Your task to perform on an android device: open app "AliExpress" (install if not already installed) and enter user name: "orangutan@inbox.com" and password: "Lyons" Image 0: 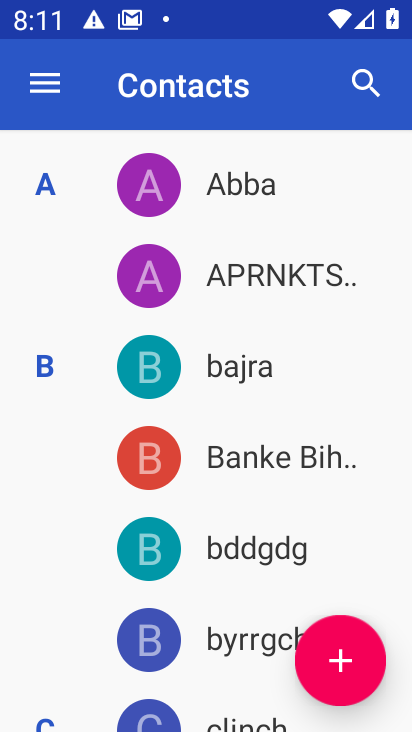
Step 0: press home button
Your task to perform on an android device: open app "AliExpress" (install if not already installed) and enter user name: "orangutan@inbox.com" and password: "Lyons" Image 1: 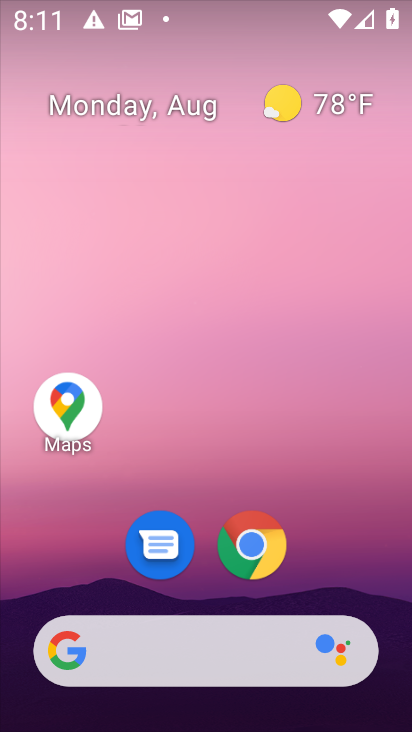
Step 1: drag from (336, 572) to (346, 122)
Your task to perform on an android device: open app "AliExpress" (install if not already installed) and enter user name: "orangutan@inbox.com" and password: "Lyons" Image 2: 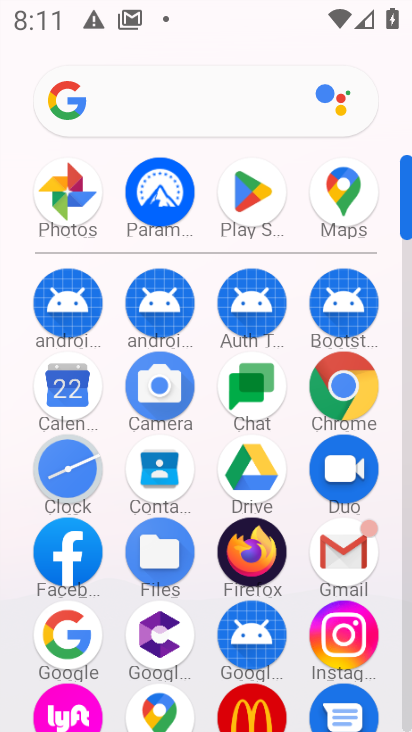
Step 2: click (257, 196)
Your task to perform on an android device: open app "AliExpress" (install if not already installed) and enter user name: "orangutan@inbox.com" and password: "Lyons" Image 3: 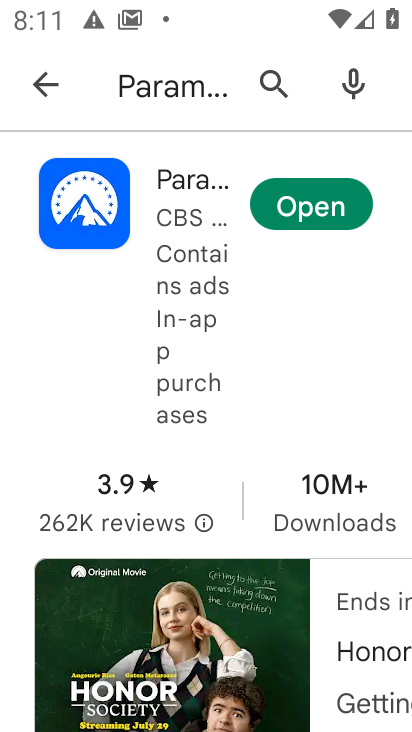
Step 3: press back button
Your task to perform on an android device: open app "AliExpress" (install if not already installed) and enter user name: "orangutan@inbox.com" and password: "Lyons" Image 4: 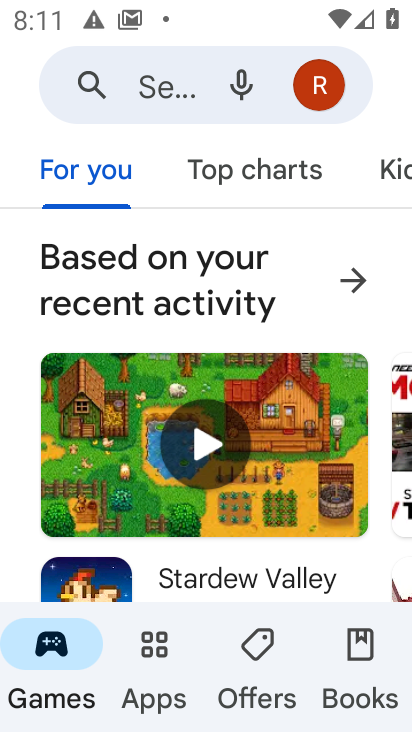
Step 4: click (144, 90)
Your task to perform on an android device: open app "AliExpress" (install if not already installed) and enter user name: "orangutan@inbox.com" and password: "Lyons" Image 5: 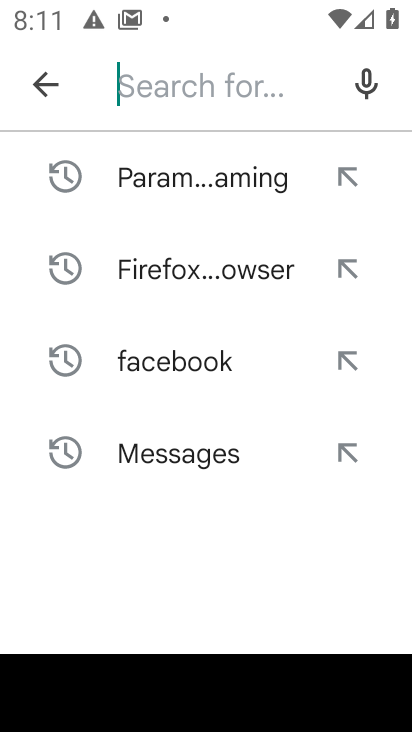
Step 5: type "AliExpress"
Your task to perform on an android device: open app "AliExpress" (install if not already installed) and enter user name: "orangutan@inbox.com" and password: "Lyons" Image 6: 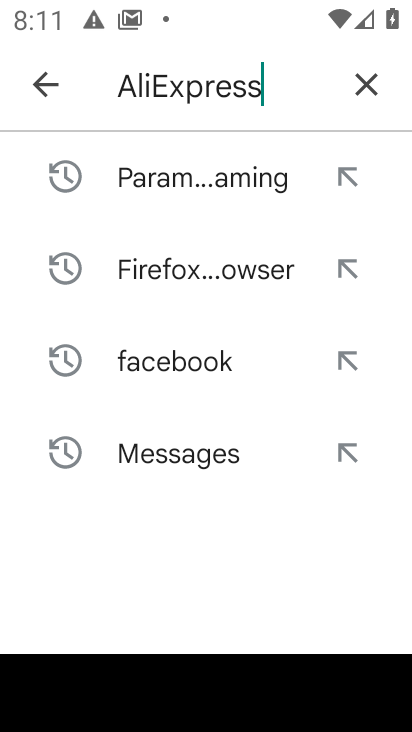
Step 6: press enter
Your task to perform on an android device: open app "AliExpress" (install if not already installed) and enter user name: "orangutan@inbox.com" and password: "Lyons" Image 7: 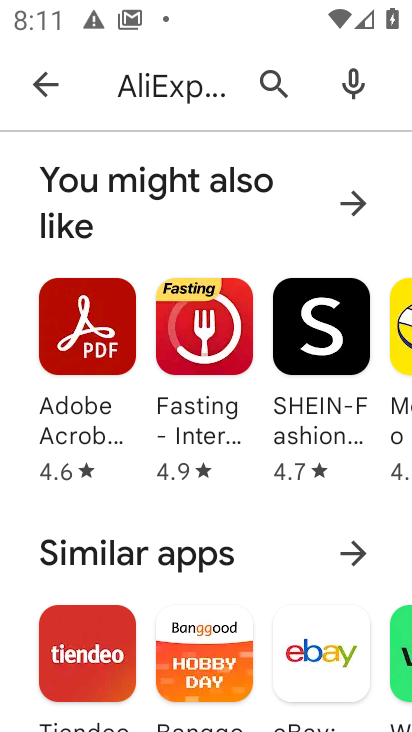
Step 7: drag from (228, 509) to (228, 238)
Your task to perform on an android device: open app "AliExpress" (install if not already installed) and enter user name: "orangutan@inbox.com" and password: "Lyons" Image 8: 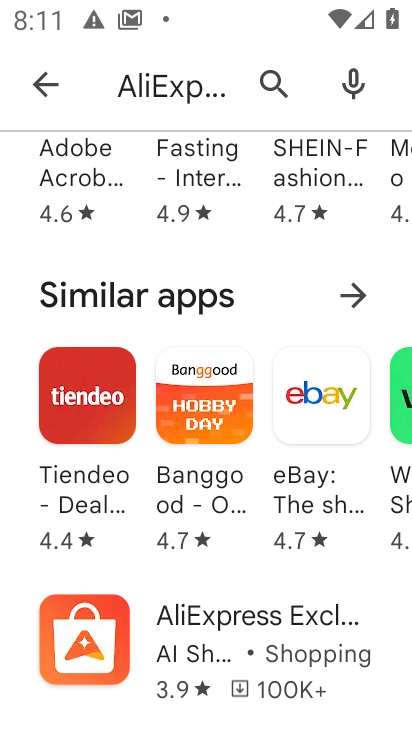
Step 8: drag from (201, 636) to (207, 325)
Your task to perform on an android device: open app "AliExpress" (install if not already installed) and enter user name: "orangutan@inbox.com" and password: "Lyons" Image 9: 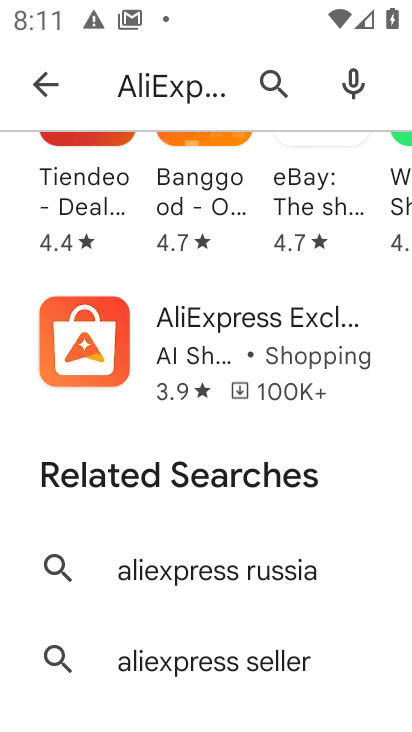
Step 9: click (230, 327)
Your task to perform on an android device: open app "AliExpress" (install if not already installed) and enter user name: "orangutan@inbox.com" and password: "Lyons" Image 10: 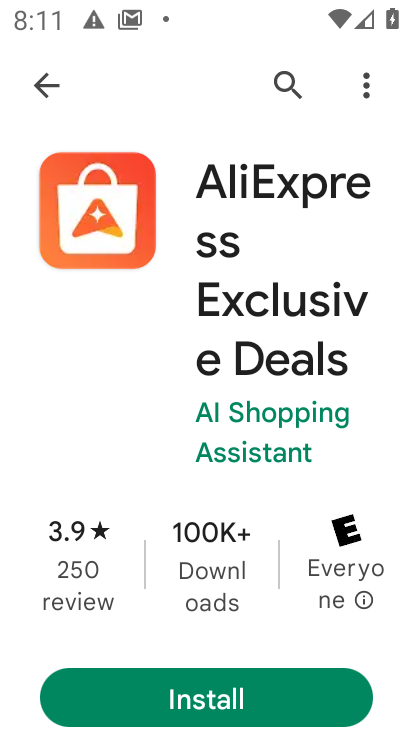
Step 10: click (241, 705)
Your task to perform on an android device: open app "AliExpress" (install if not already installed) and enter user name: "orangutan@inbox.com" and password: "Lyons" Image 11: 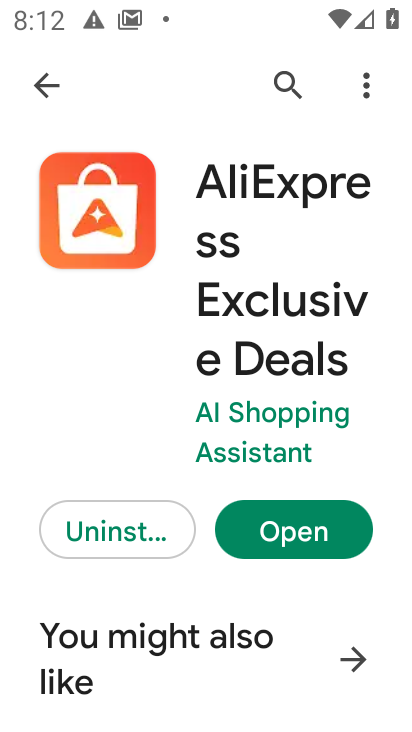
Step 11: click (318, 533)
Your task to perform on an android device: open app "AliExpress" (install if not already installed) and enter user name: "orangutan@inbox.com" and password: "Lyons" Image 12: 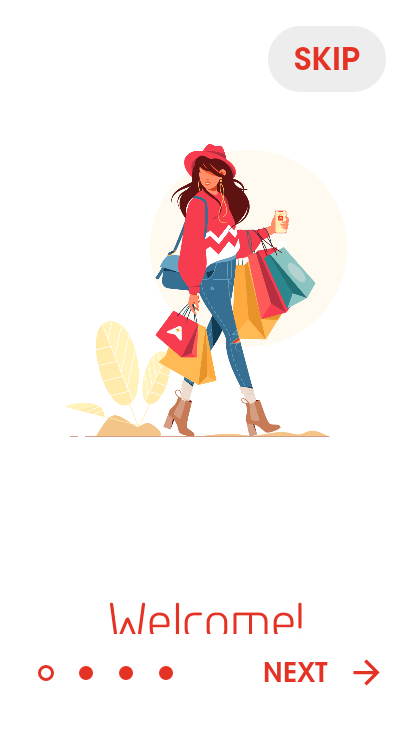
Step 12: click (296, 663)
Your task to perform on an android device: open app "AliExpress" (install if not already installed) and enter user name: "orangutan@inbox.com" and password: "Lyons" Image 13: 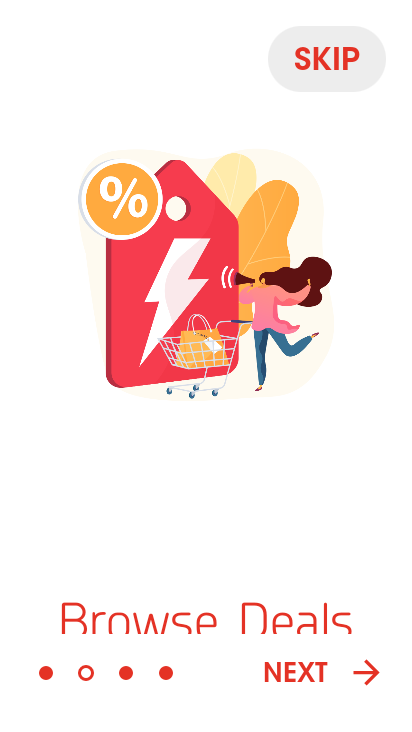
Step 13: click (301, 678)
Your task to perform on an android device: open app "AliExpress" (install if not already installed) and enter user name: "orangutan@inbox.com" and password: "Lyons" Image 14: 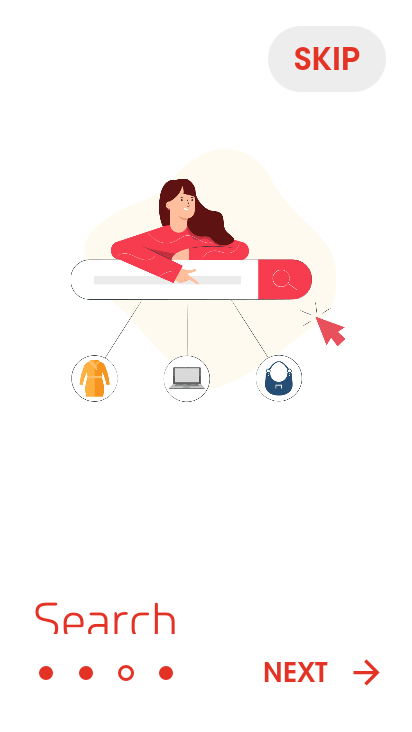
Step 14: click (287, 669)
Your task to perform on an android device: open app "AliExpress" (install if not already installed) and enter user name: "orangutan@inbox.com" and password: "Lyons" Image 15: 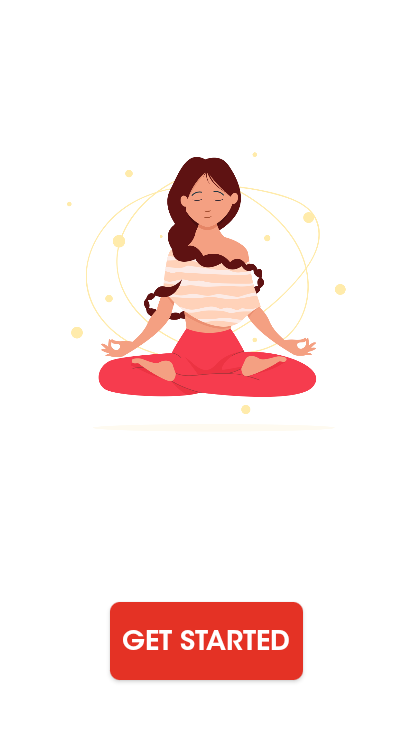
Step 15: click (244, 645)
Your task to perform on an android device: open app "AliExpress" (install if not already installed) and enter user name: "orangutan@inbox.com" and password: "Lyons" Image 16: 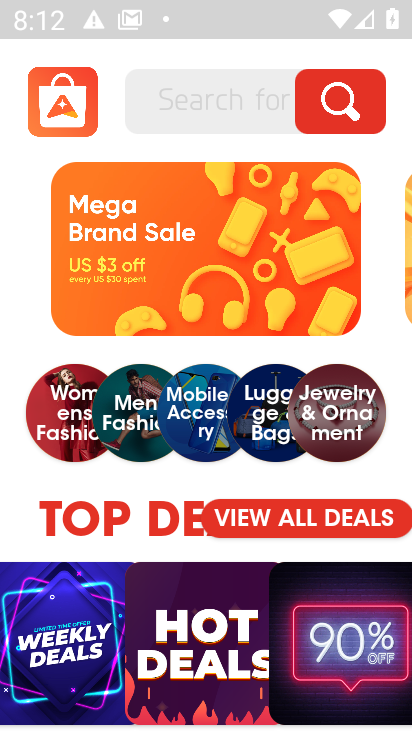
Step 16: task complete